Your task to perform on an android device: move a message to another label in the gmail app Image 0: 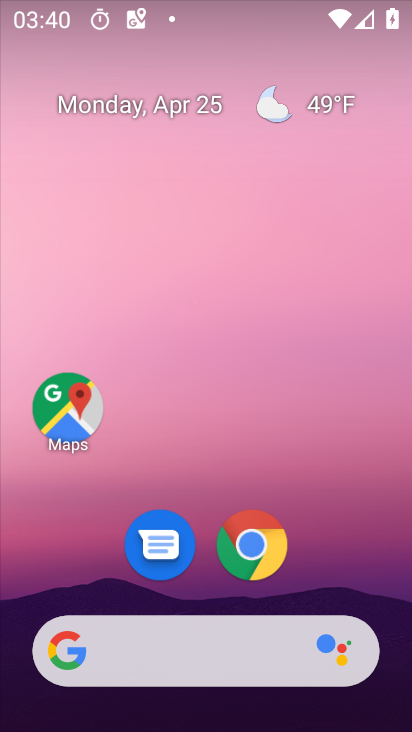
Step 0: drag from (343, 540) to (298, 113)
Your task to perform on an android device: move a message to another label in the gmail app Image 1: 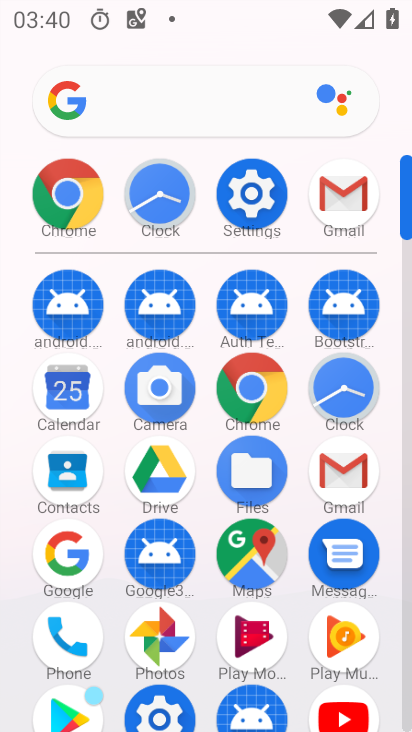
Step 1: click (343, 218)
Your task to perform on an android device: move a message to another label in the gmail app Image 2: 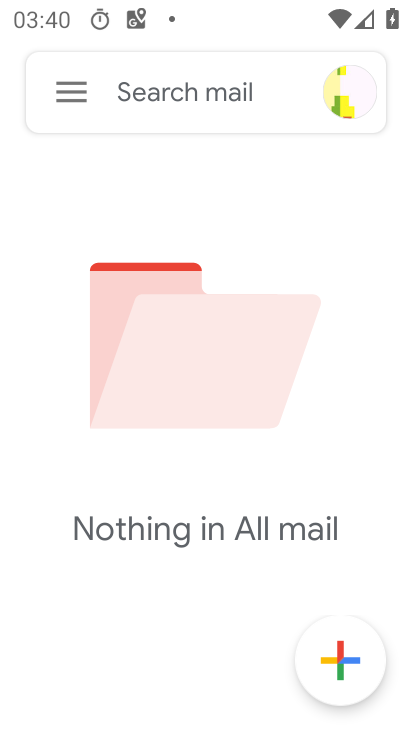
Step 2: click (72, 92)
Your task to perform on an android device: move a message to another label in the gmail app Image 3: 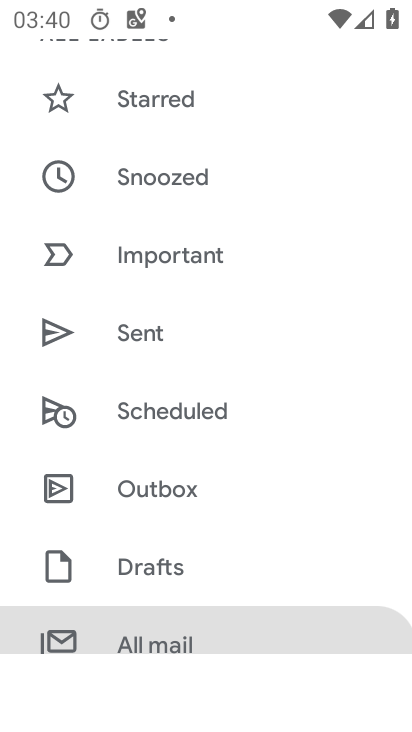
Step 3: drag from (220, 161) to (203, 417)
Your task to perform on an android device: move a message to another label in the gmail app Image 4: 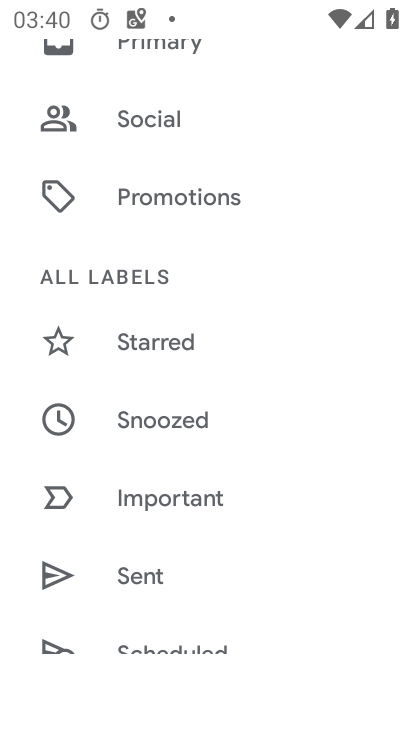
Step 4: click (123, 280)
Your task to perform on an android device: move a message to another label in the gmail app Image 5: 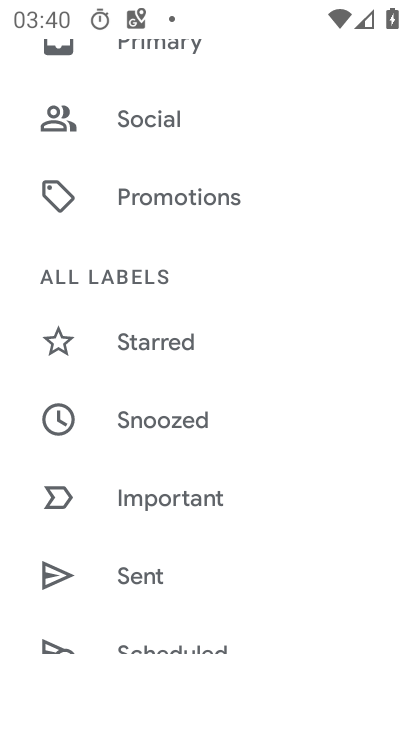
Step 5: drag from (271, 535) to (312, 245)
Your task to perform on an android device: move a message to another label in the gmail app Image 6: 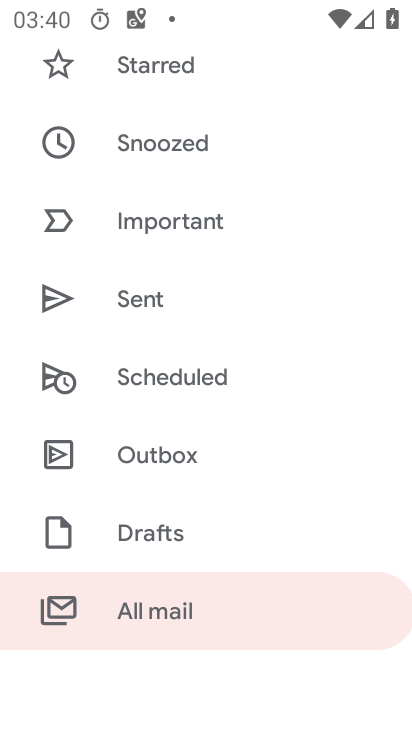
Step 6: click (137, 601)
Your task to perform on an android device: move a message to another label in the gmail app Image 7: 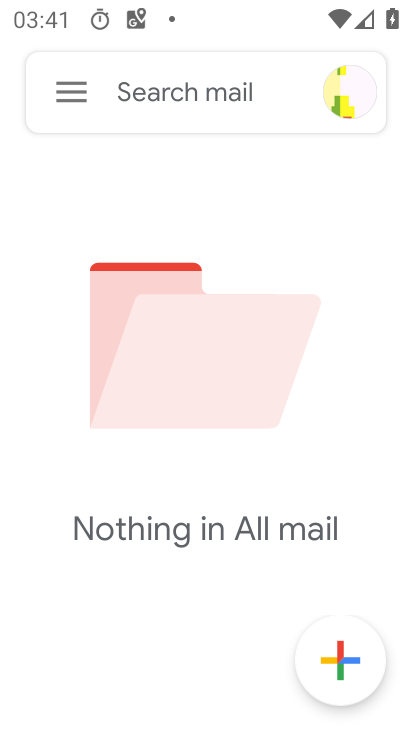
Step 7: task complete